Your task to perform on an android device: Open the calendar app, open the side menu, and click the "Day" option Image 0: 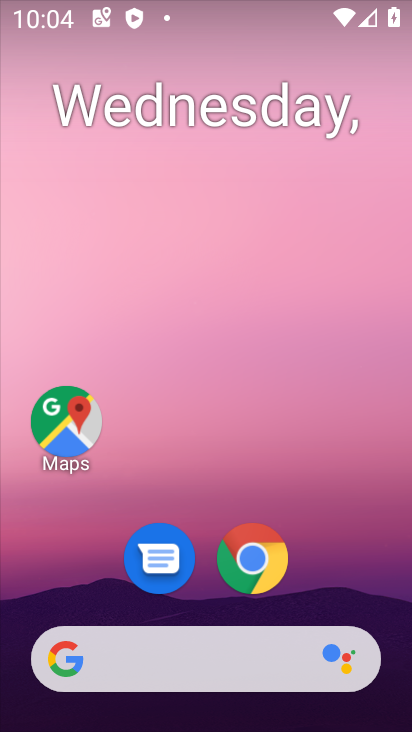
Step 0: press home button
Your task to perform on an android device: Open the calendar app, open the side menu, and click the "Day" option Image 1: 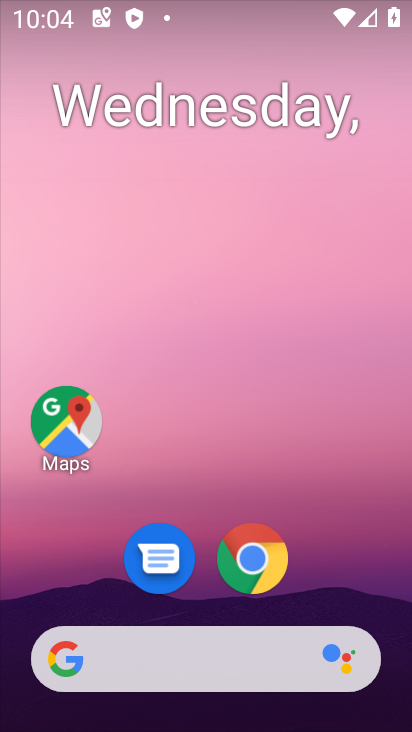
Step 1: drag from (7, 523) to (148, 184)
Your task to perform on an android device: Open the calendar app, open the side menu, and click the "Day" option Image 2: 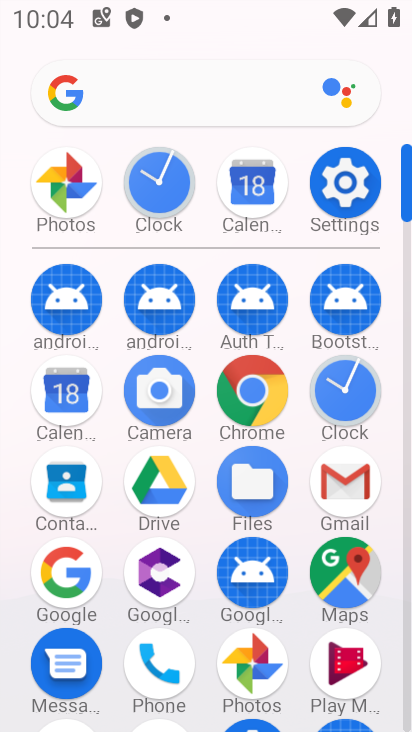
Step 2: click (47, 391)
Your task to perform on an android device: Open the calendar app, open the side menu, and click the "Day" option Image 3: 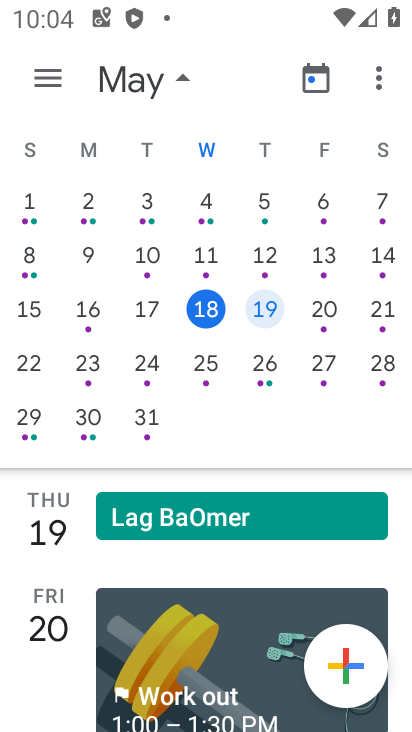
Step 3: click (37, 82)
Your task to perform on an android device: Open the calendar app, open the side menu, and click the "Day" option Image 4: 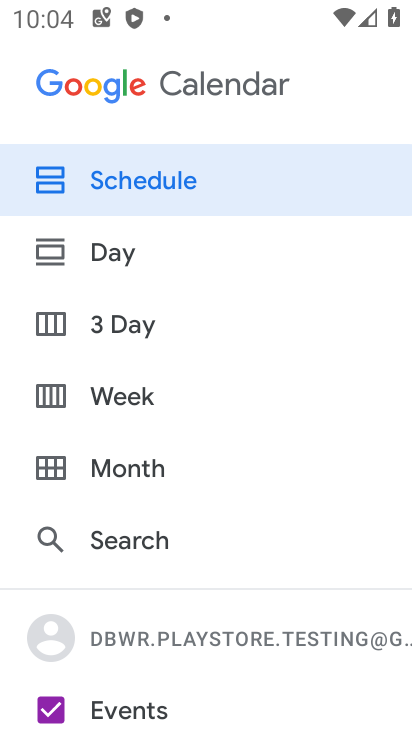
Step 4: click (122, 244)
Your task to perform on an android device: Open the calendar app, open the side menu, and click the "Day" option Image 5: 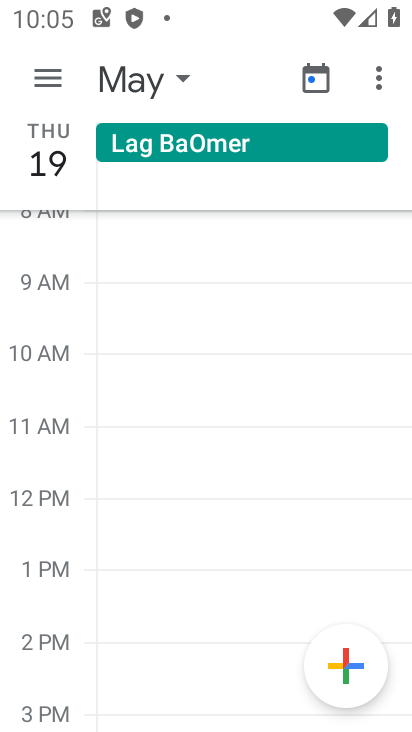
Step 5: click (44, 82)
Your task to perform on an android device: Open the calendar app, open the side menu, and click the "Day" option Image 6: 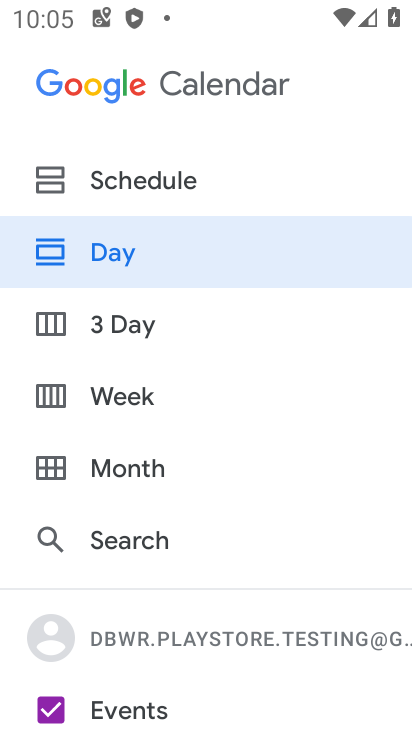
Step 6: click (147, 248)
Your task to perform on an android device: Open the calendar app, open the side menu, and click the "Day" option Image 7: 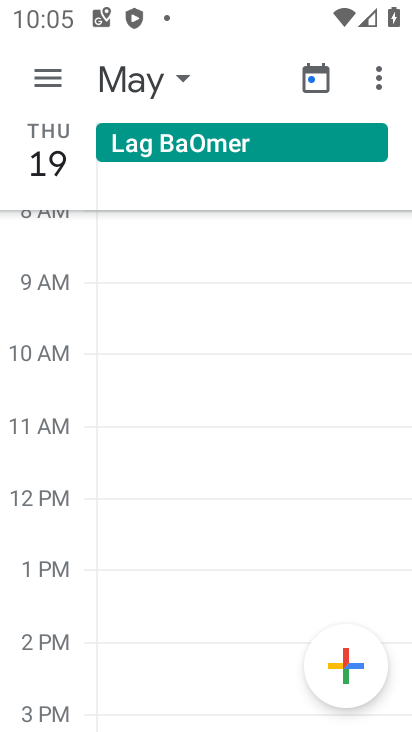
Step 7: task complete